Your task to perform on an android device: Open the calendar and show me this week's events? Image 0: 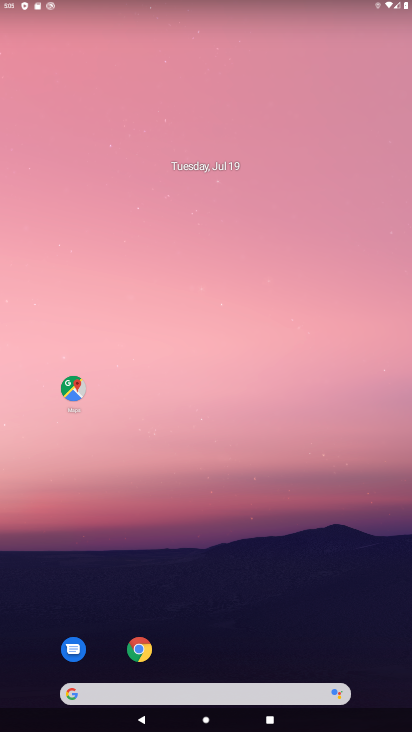
Step 0: drag from (289, 675) to (249, 39)
Your task to perform on an android device: Open the calendar and show me this week's events? Image 1: 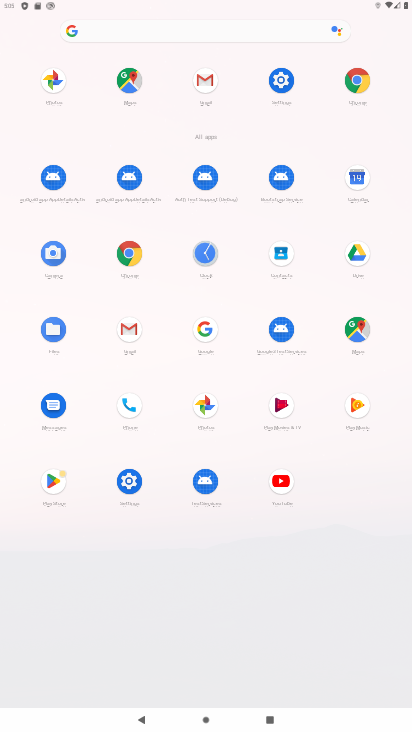
Step 1: click (357, 172)
Your task to perform on an android device: Open the calendar and show me this week's events? Image 2: 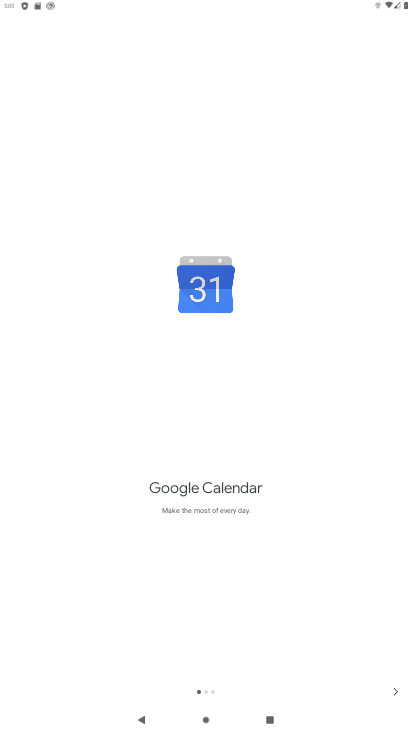
Step 2: click (387, 683)
Your task to perform on an android device: Open the calendar and show me this week's events? Image 3: 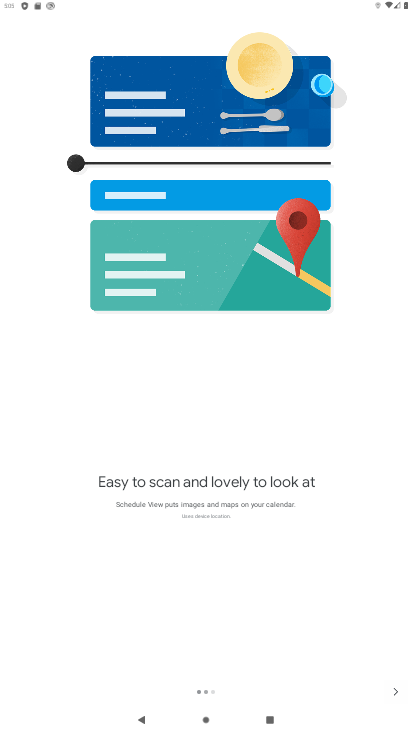
Step 3: click (387, 681)
Your task to perform on an android device: Open the calendar and show me this week's events? Image 4: 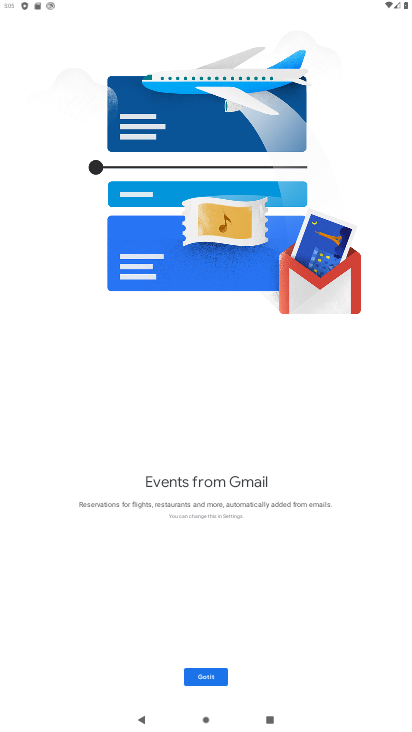
Step 4: click (212, 670)
Your task to perform on an android device: Open the calendar and show me this week's events? Image 5: 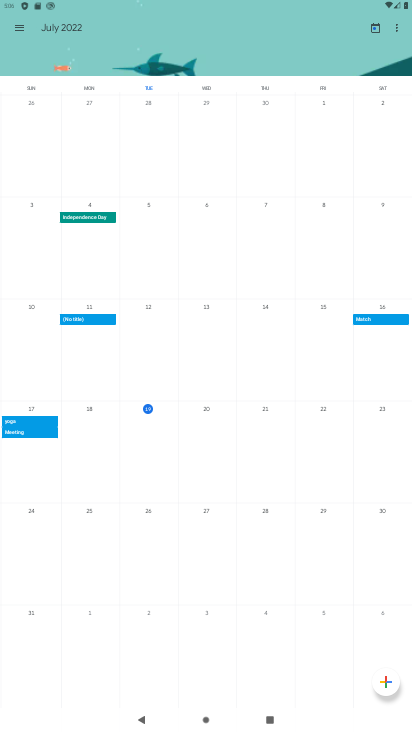
Step 5: click (10, 21)
Your task to perform on an android device: Open the calendar and show me this week's events? Image 6: 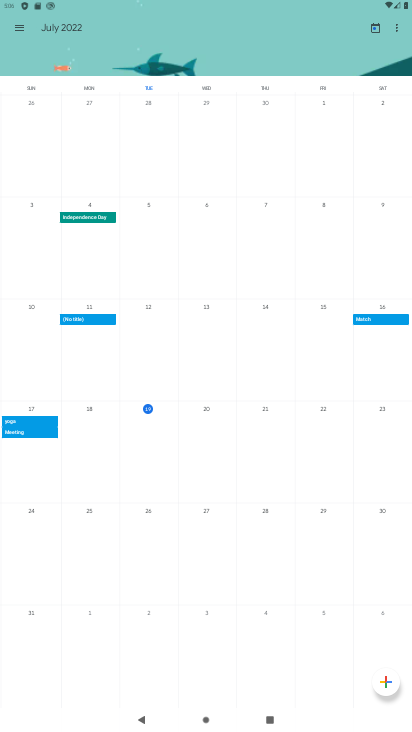
Step 6: click (20, 29)
Your task to perform on an android device: Open the calendar and show me this week's events? Image 7: 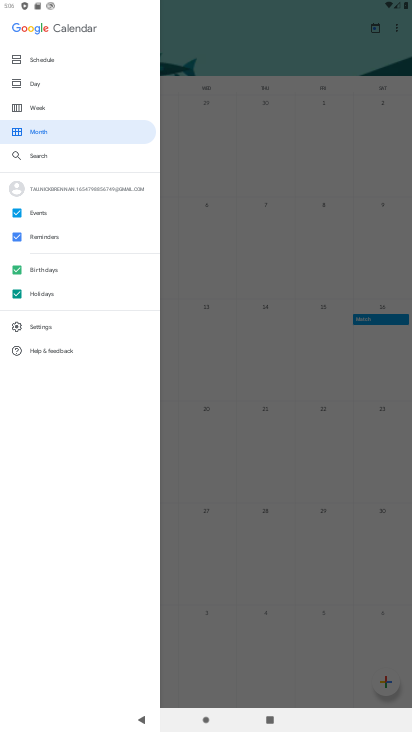
Step 7: click (53, 113)
Your task to perform on an android device: Open the calendar and show me this week's events? Image 8: 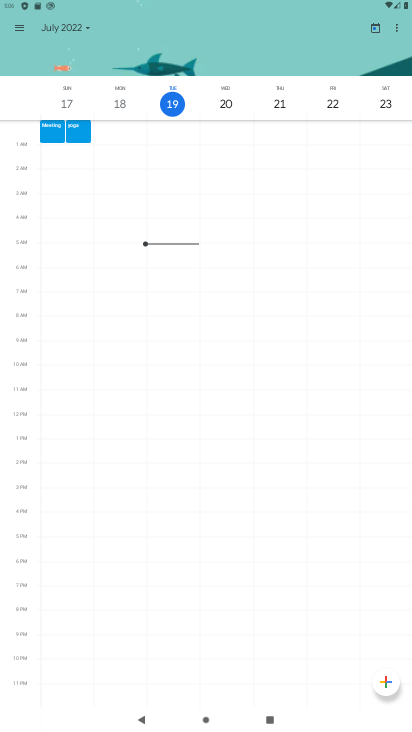
Step 8: task complete